Your task to perform on an android device: What's the weather going to be tomorrow? Image 0: 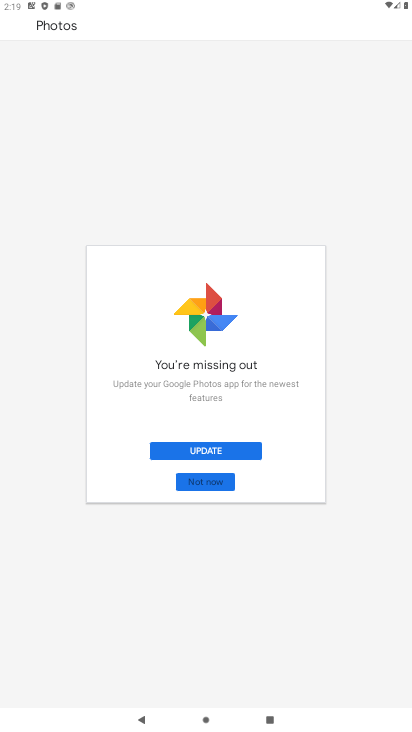
Step 0: press home button
Your task to perform on an android device: What's the weather going to be tomorrow? Image 1: 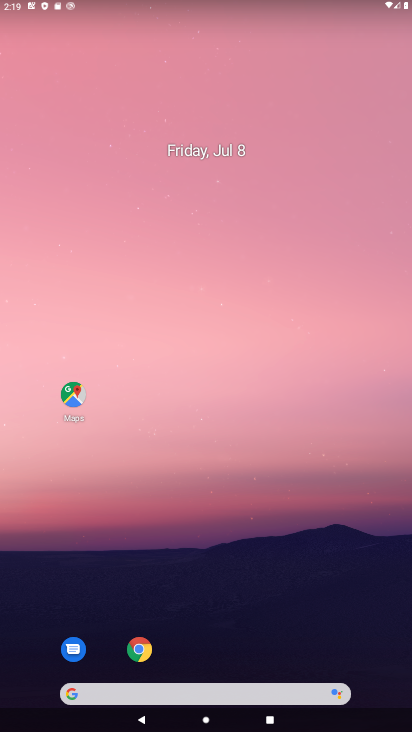
Step 1: drag from (9, 211) to (379, 249)
Your task to perform on an android device: What's the weather going to be tomorrow? Image 2: 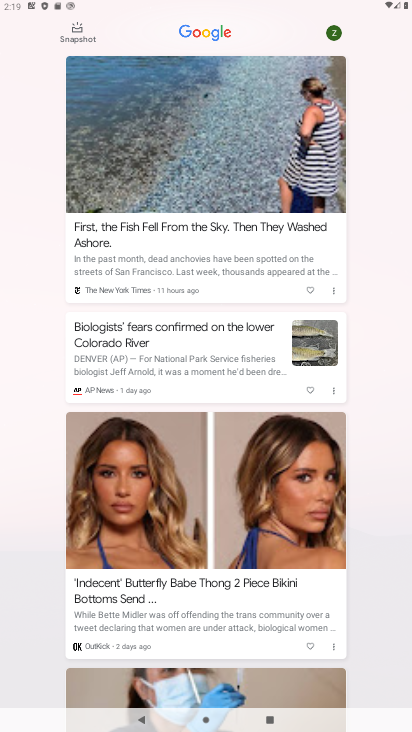
Step 2: drag from (403, 387) to (31, 366)
Your task to perform on an android device: What's the weather going to be tomorrow? Image 3: 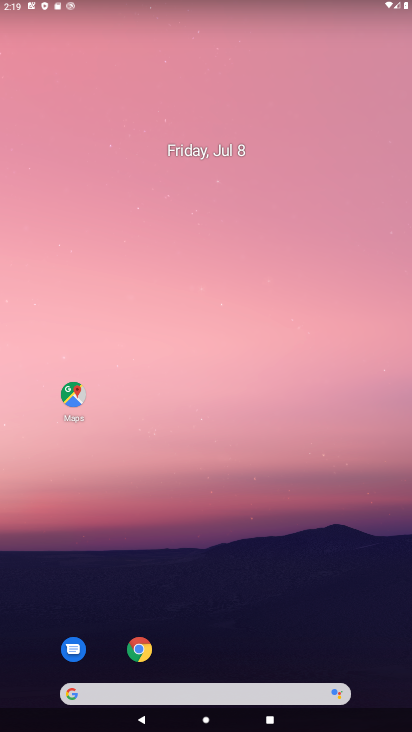
Step 3: click (120, 694)
Your task to perform on an android device: What's the weather going to be tomorrow? Image 4: 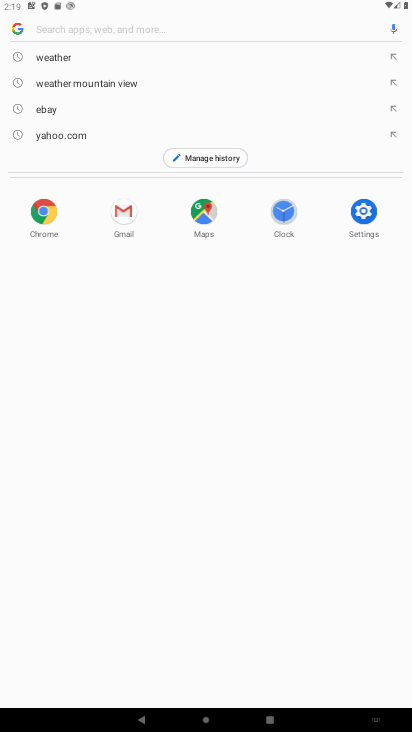
Step 4: click (57, 58)
Your task to perform on an android device: What's the weather going to be tomorrow? Image 5: 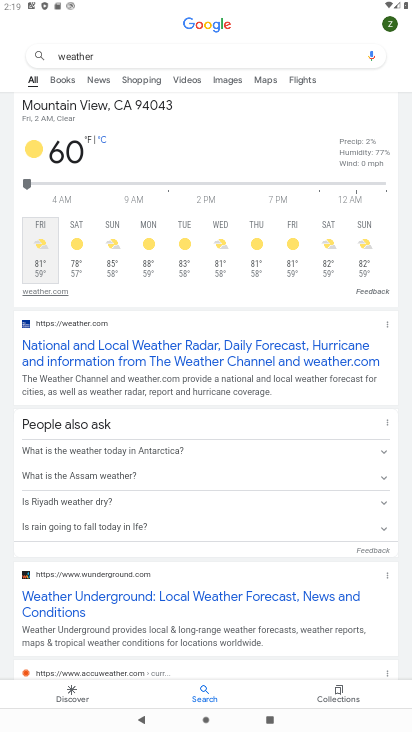
Step 5: task complete